Your task to perform on an android device: Show me popular videos on Youtube Image 0: 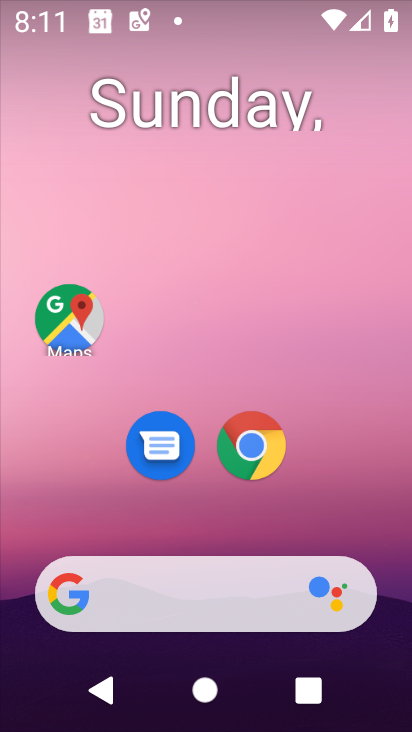
Step 0: drag from (14, 644) to (241, 139)
Your task to perform on an android device: Show me popular videos on Youtube Image 1: 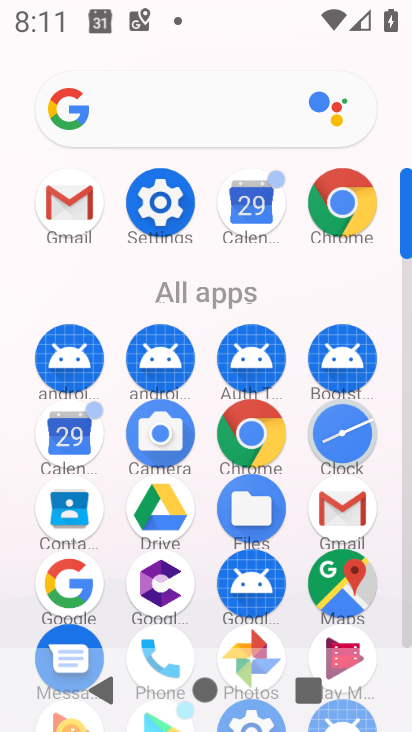
Step 1: drag from (29, 478) to (246, 107)
Your task to perform on an android device: Show me popular videos on Youtube Image 2: 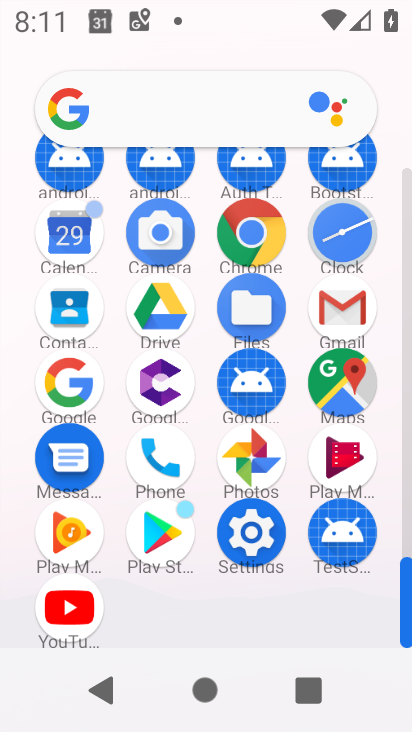
Step 2: click (55, 605)
Your task to perform on an android device: Show me popular videos on Youtube Image 3: 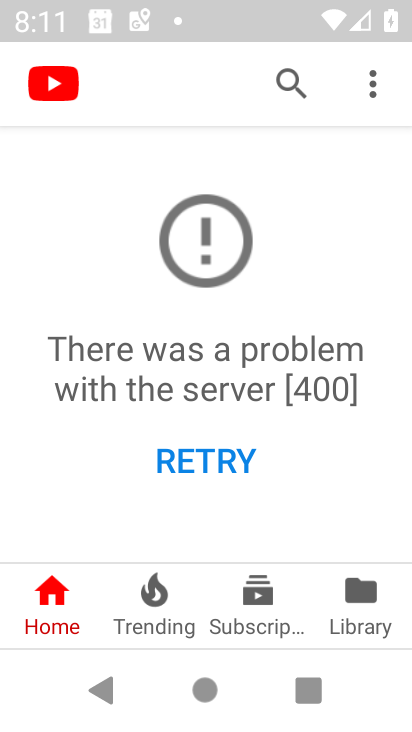
Step 3: click (162, 585)
Your task to perform on an android device: Show me popular videos on Youtube Image 4: 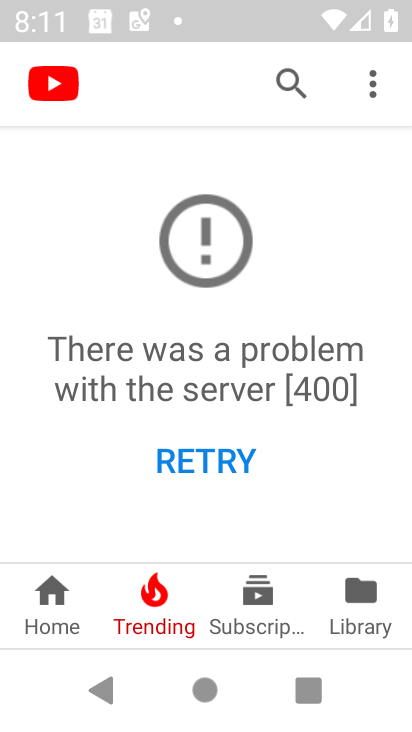
Step 4: task complete